Your task to perform on an android device: set default search engine in the chrome app Image 0: 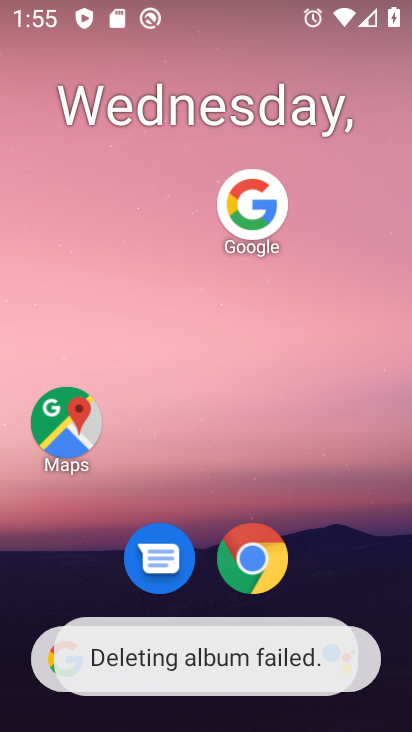
Step 0: click (266, 565)
Your task to perform on an android device: set default search engine in the chrome app Image 1: 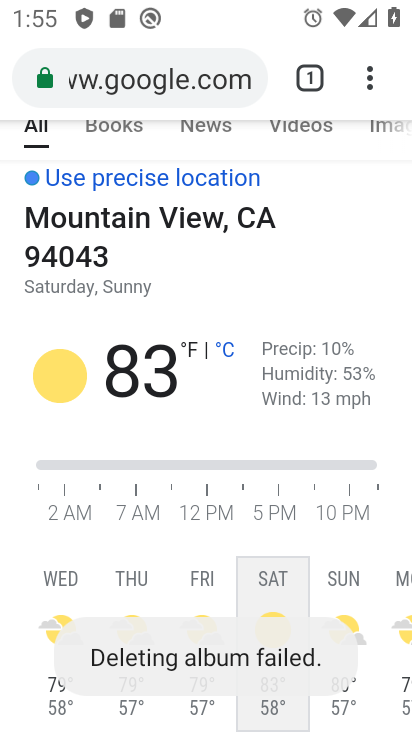
Step 1: click (376, 95)
Your task to perform on an android device: set default search engine in the chrome app Image 2: 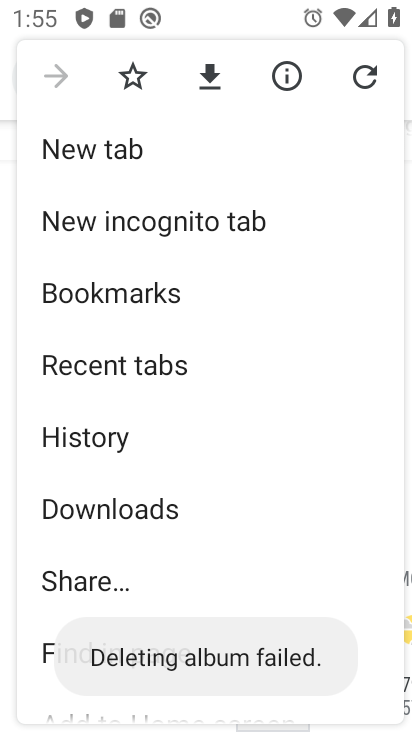
Step 2: drag from (265, 567) to (234, 201)
Your task to perform on an android device: set default search engine in the chrome app Image 3: 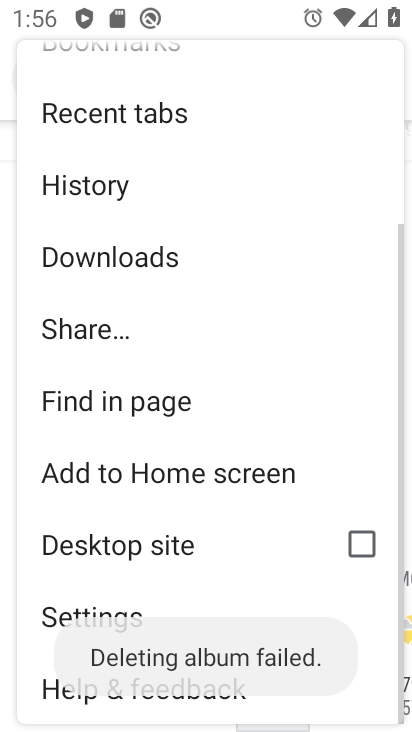
Step 3: click (200, 606)
Your task to perform on an android device: set default search engine in the chrome app Image 4: 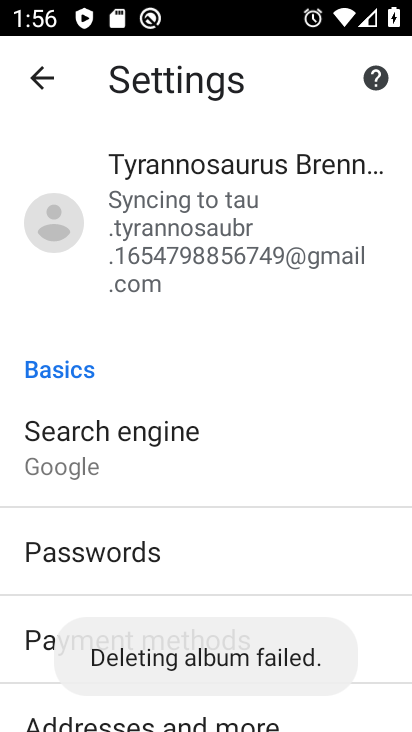
Step 4: click (161, 438)
Your task to perform on an android device: set default search engine in the chrome app Image 5: 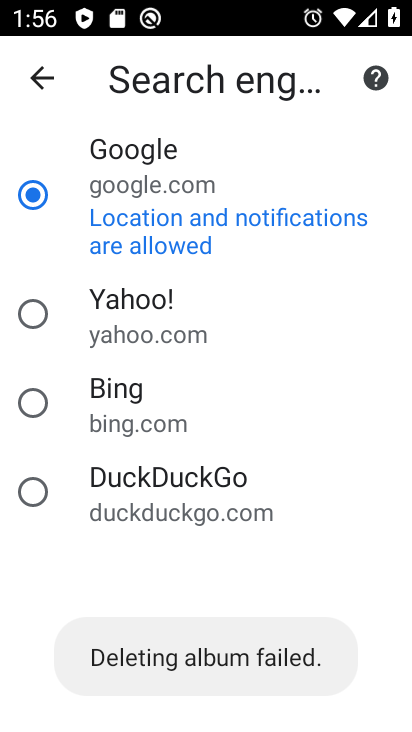
Step 5: click (130, 314)
Your task to perform on an android device: set default search engine in the chrome app Image 6: 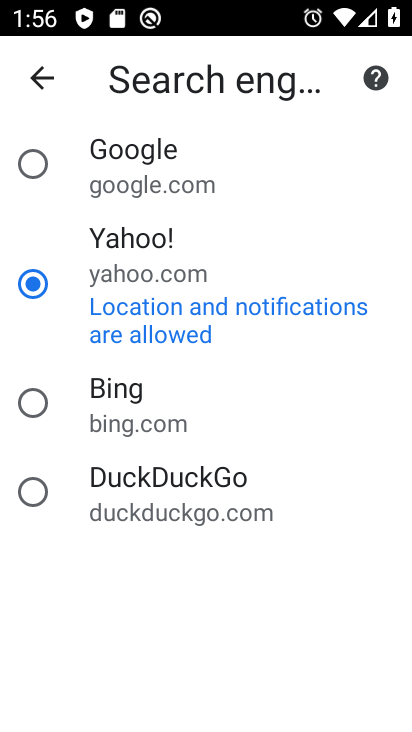
Step 6: task complete